Your task to perform on an android device: open app "Adobe Acrobat Reader" Image 0: 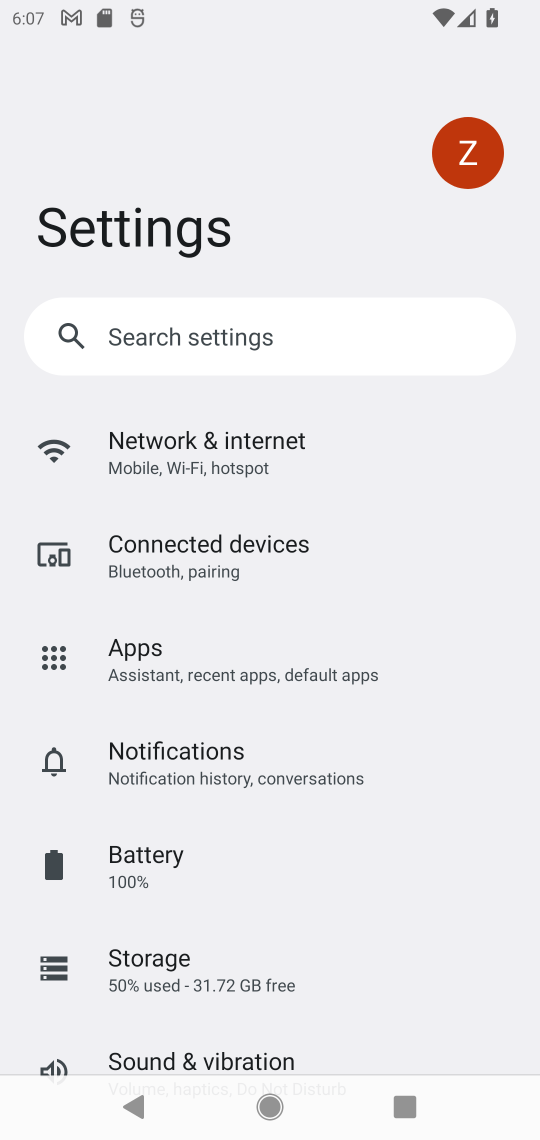
Step 0: press back button
Your task to perform on an android device: open app "Adobe Acrobat Reader" Image 1: 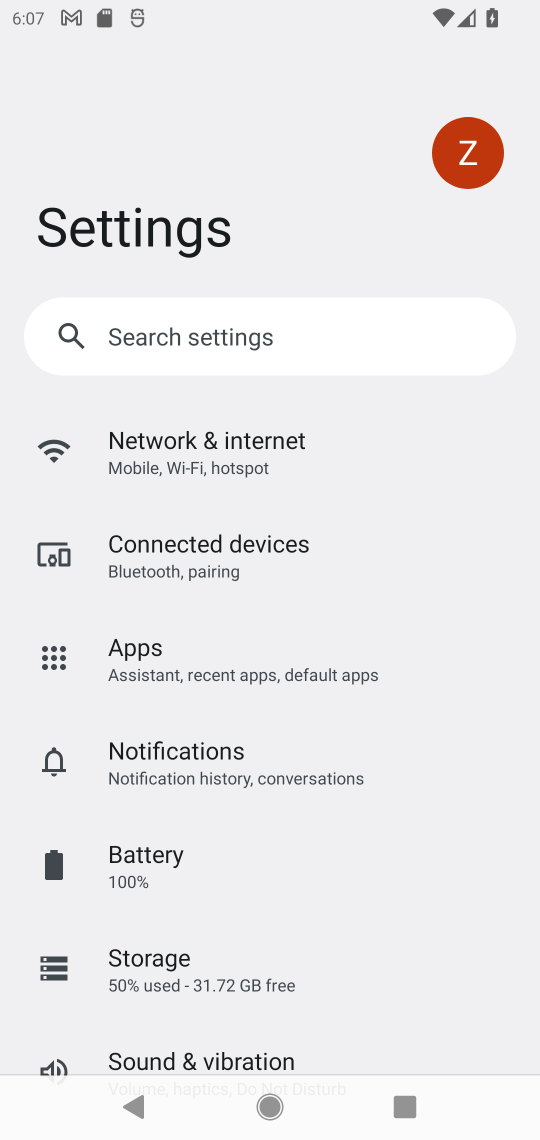
Step 1: press back button
Your task to perform on an android device: open app "Adobe Acrobat Reader" Image 2: 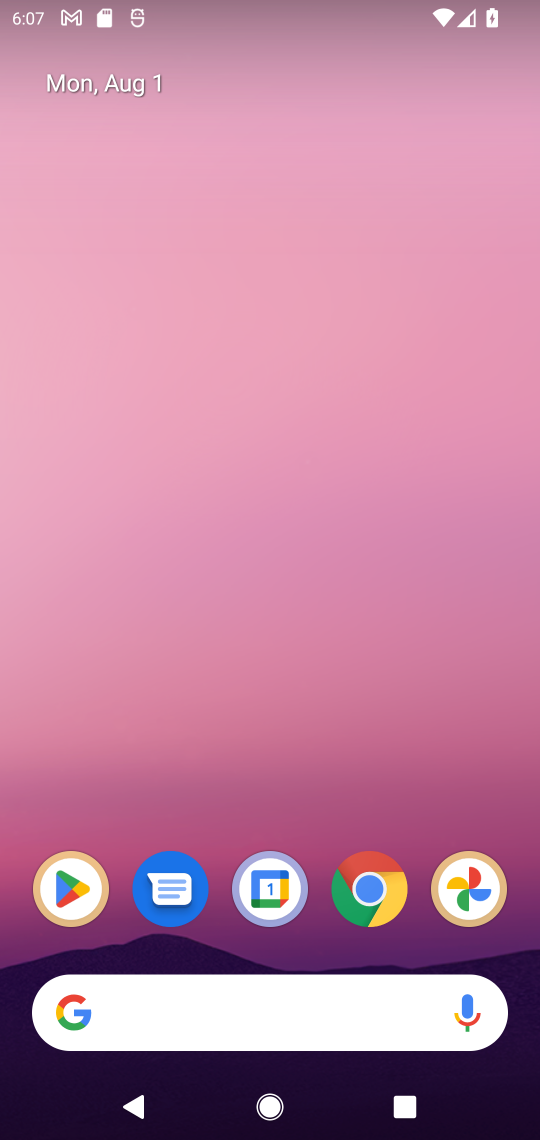
Step 2: click (268, 299)
Your task to perform on an android device: open app "Adobe Acrobat Reader" Image 3: 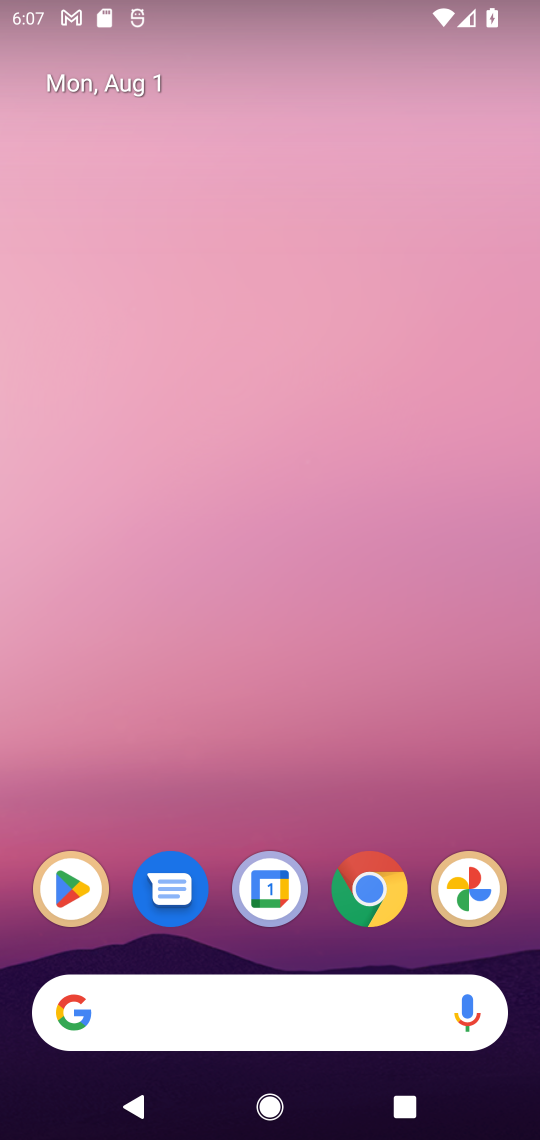
Step 3: click (275, 464)
Your task to perform on an android device: open app "Adobe Acrobat Reader" Image 4: 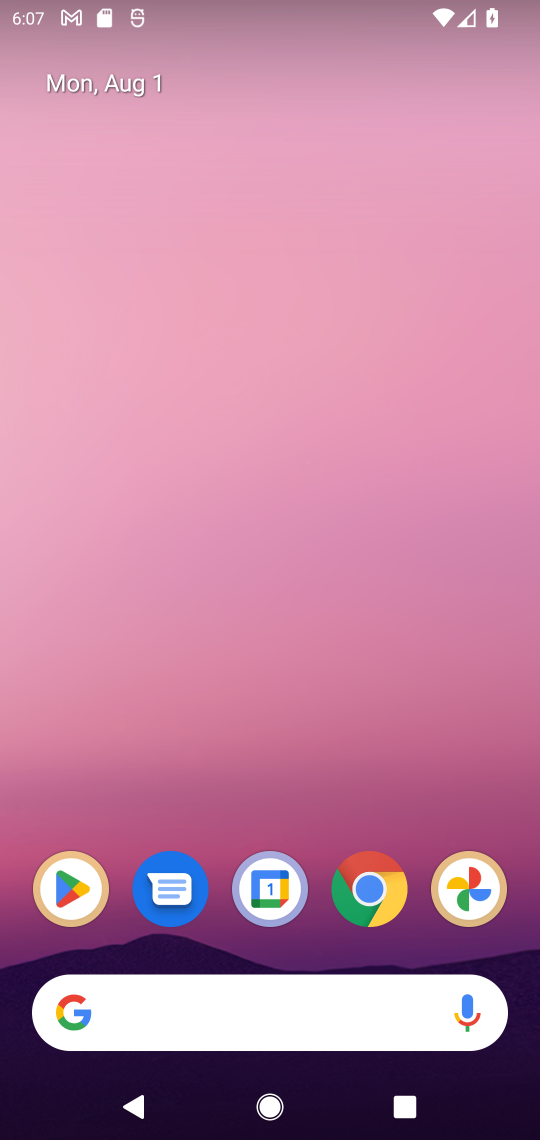
Step 4: drag from (251, 422) to (226, 249)
Your task to perform on an android device: open app "Adobe Acrobat Reader" Image 5: 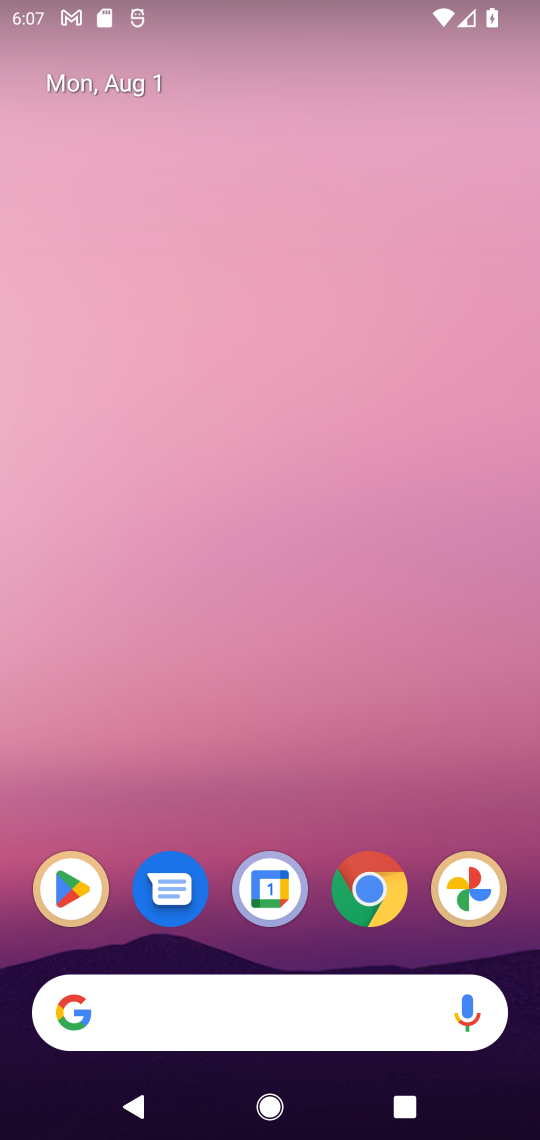
Step 5: drag from (343, 429) to (293, 236)
Your task to perform on an android device: open app "Adobe Acrobat Reader" Image 6: 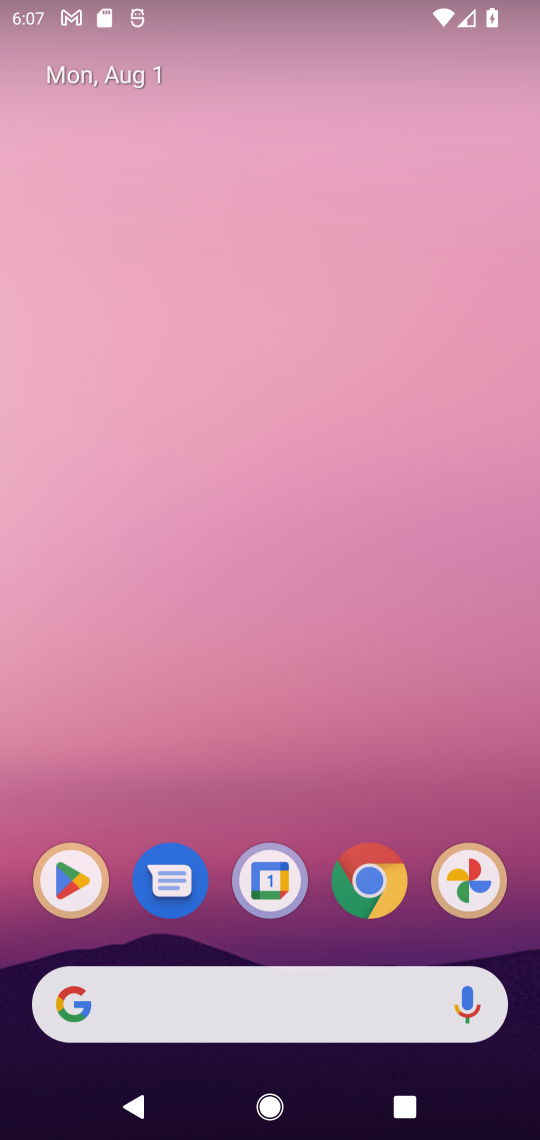
Step 6: drag from (266, 482) to (233, 61)
Your task to perform on an android device: open app "Adobe Acrobat Reader" Image 7: 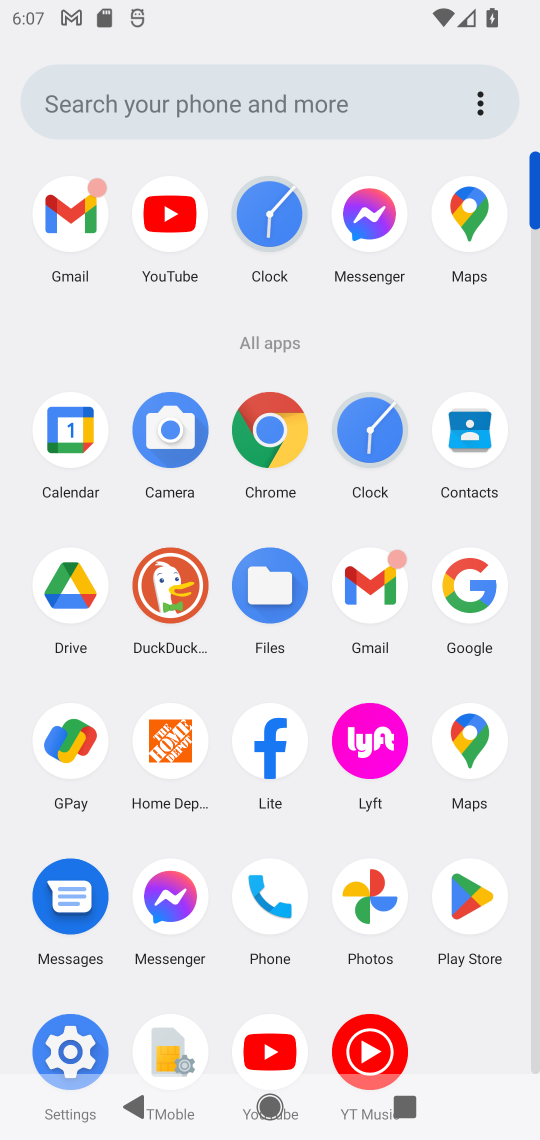
Step 7: click (469, 921)
Your task to perform on an android device: open app "Adobe Acrobat Reader" Image 8: 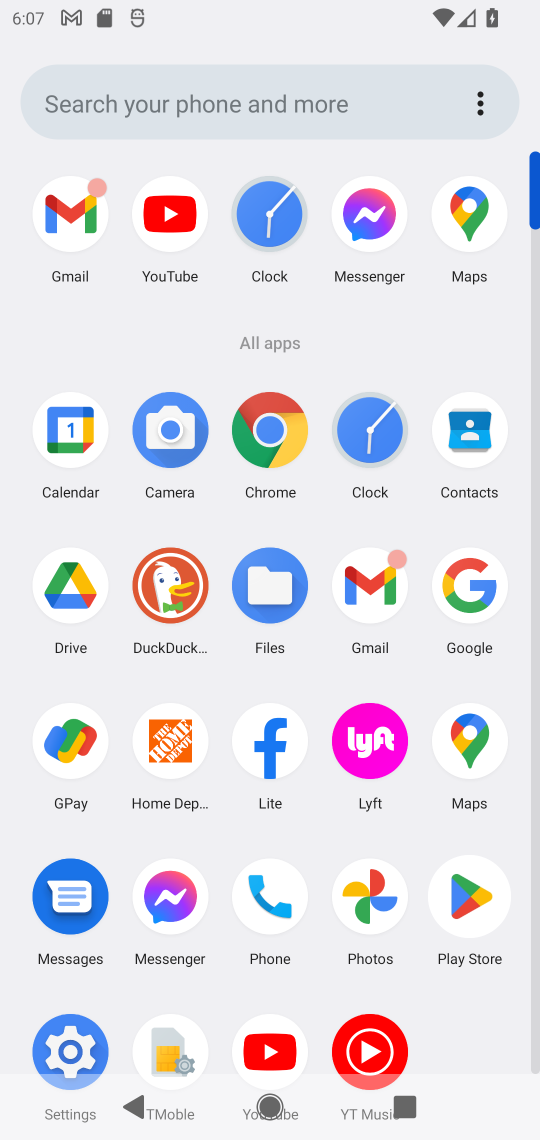
Step 8: click (462, 926)
Your task to perform on an android device: open app "Adobe Acrobat Reader" Image 9: 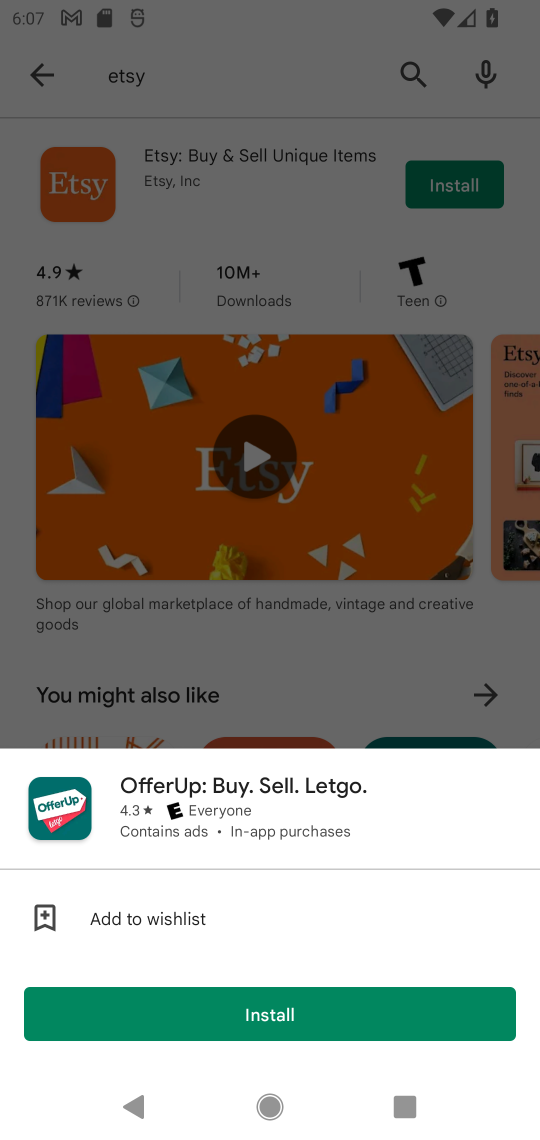
Step 9: click (37, 86)
Your task to perform on an android device: open app "Adobe Acrobat Reader" Image 10: 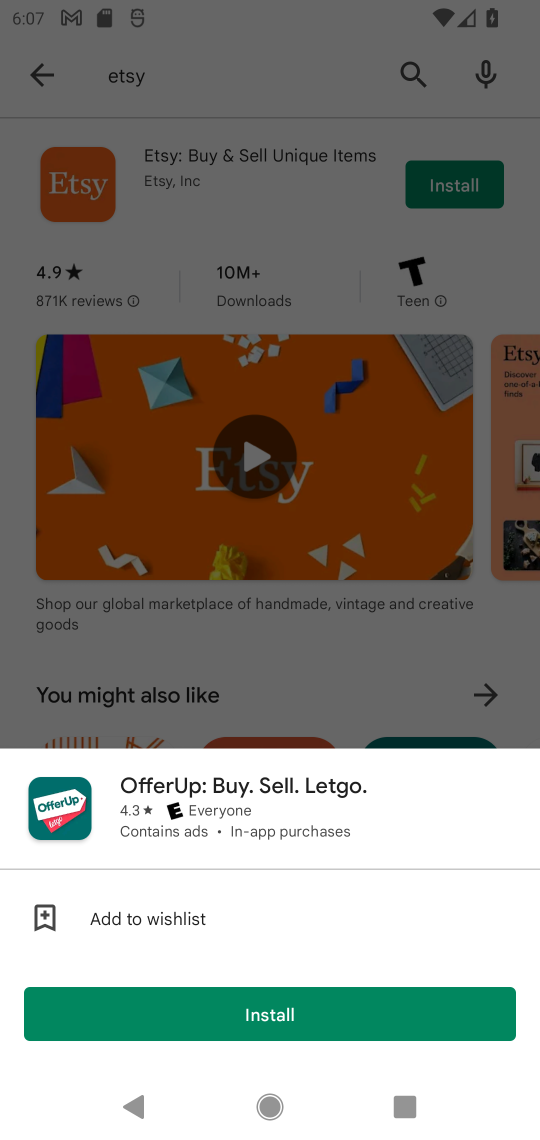
Step 10: click (37, 86)
Your task to perform on an android device: open app "Adobe Acrobat Reader" Image 11: 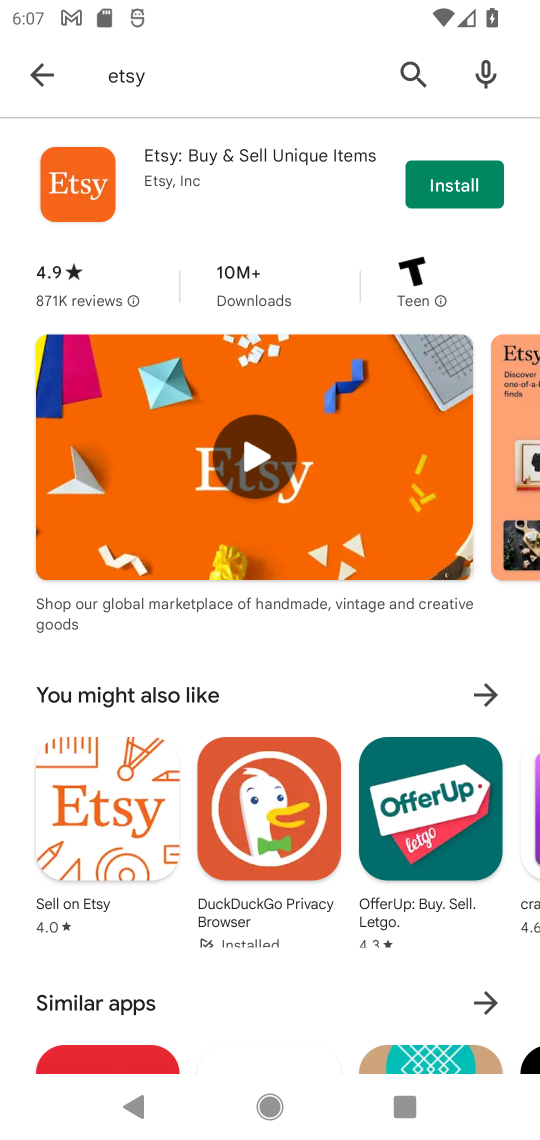
Step 11: click (9, 80)
Your task to perform on an android device: open app "Adobe Acrobat Reader" Image 12: 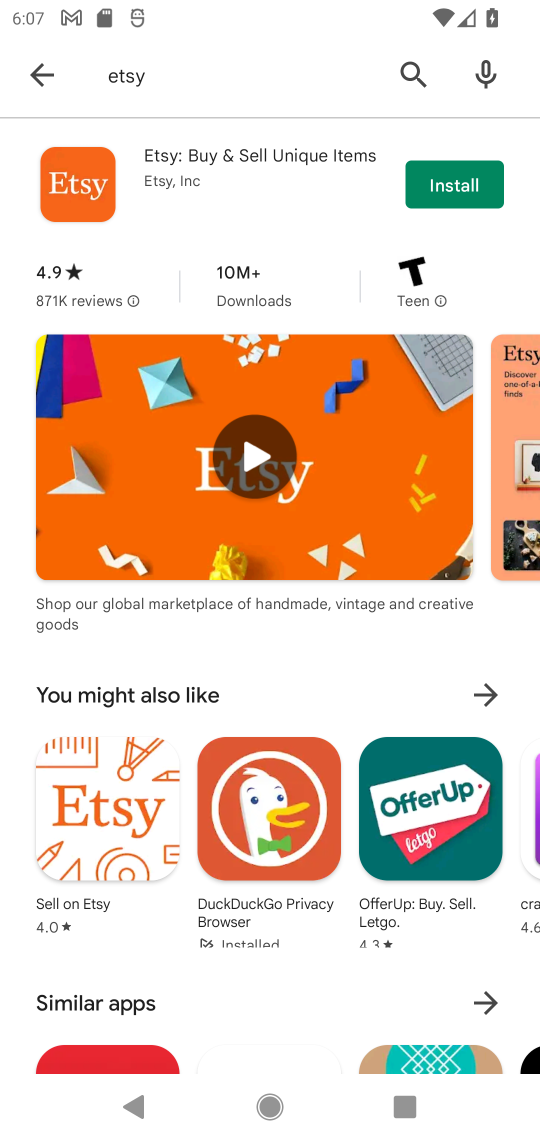
Step 12: click (47, 90)
Your task to perform on an android device: open app "Adobe Acrobat Reader" Image 13: 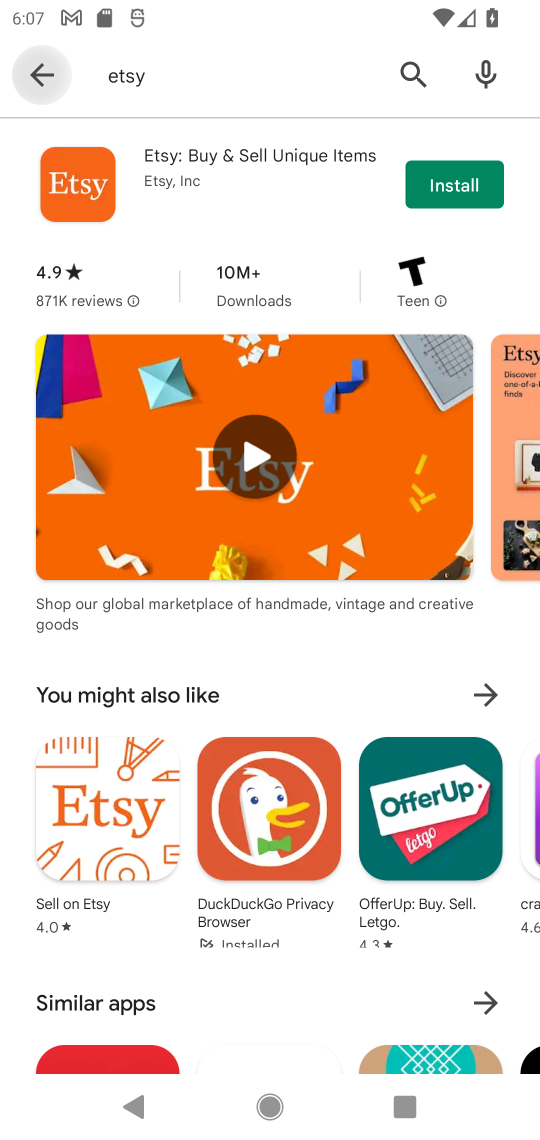
Step 13: click (48, 94)
Your task to perform on an android device: open app "Adobe Acrobat Reader" Image 14: 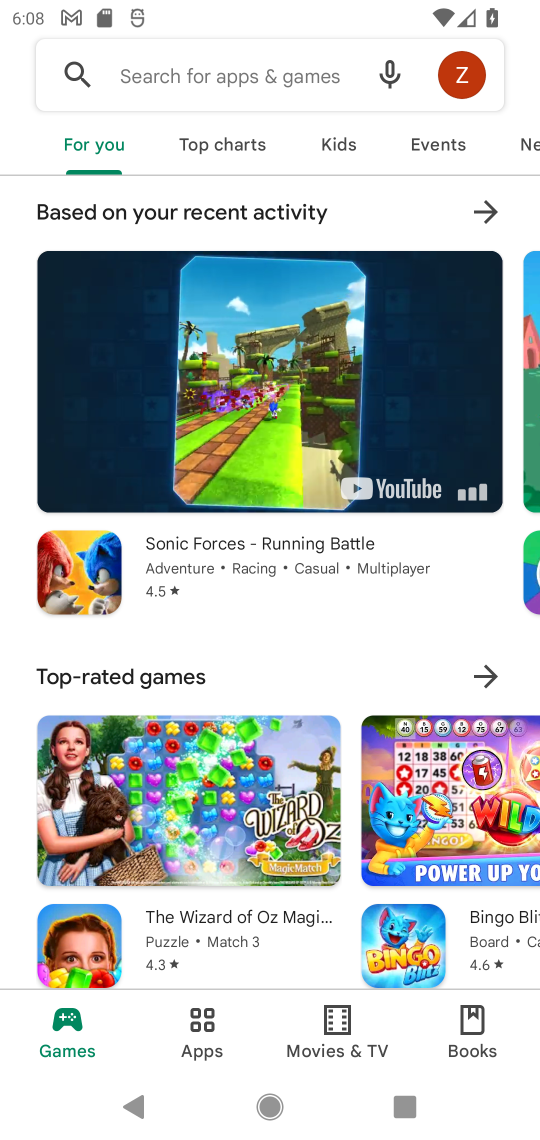
Step 14: click (169, 81)
Your task to perform on an android device: open app "Adobe Acrobat Reader" Image 15: 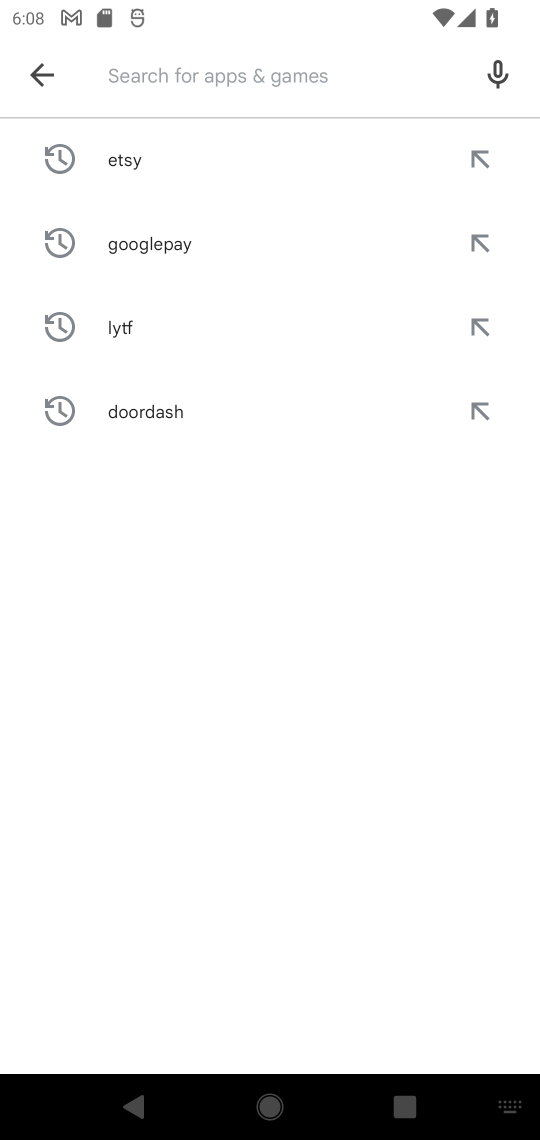
Step 15: type "adobe"
Your task to perform on an android device: open app "Adobe Acrobat Reader" Image 16: 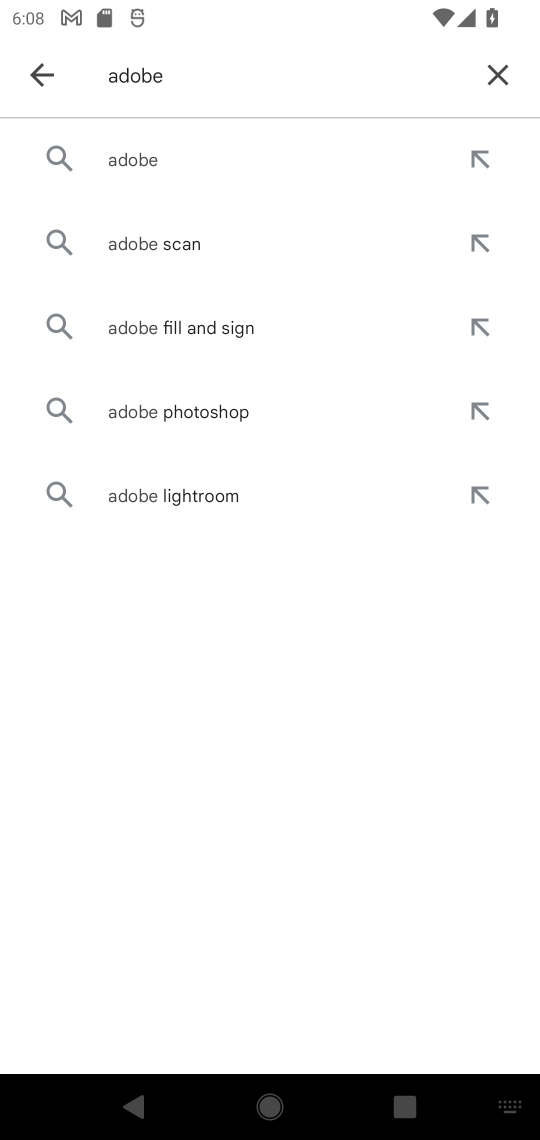
Step 16: click (127, 152)
Your task to perform on an android device: open app "Adobe Acrobat Reader" Image 17: 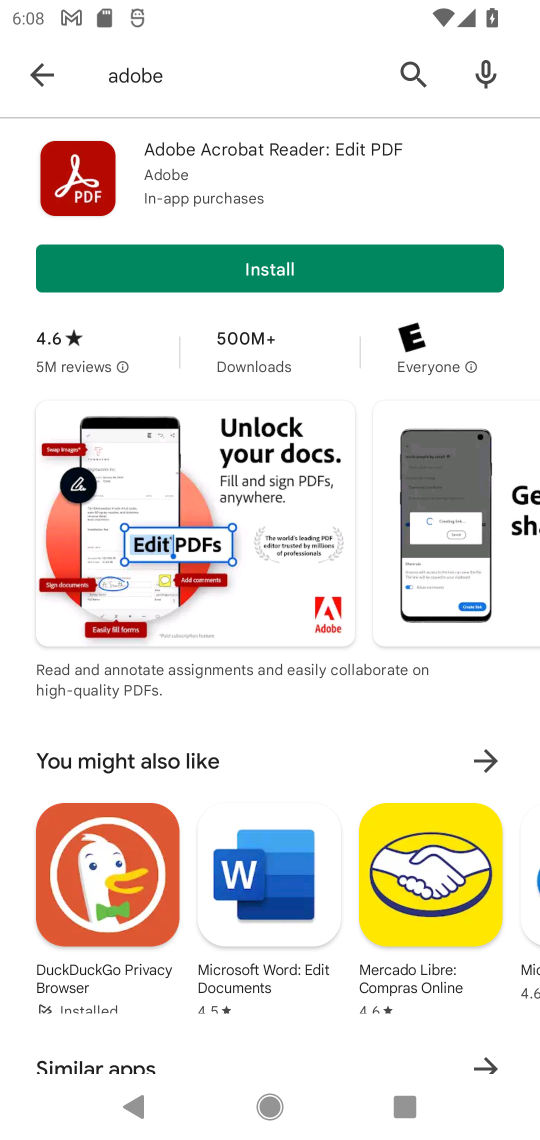
Step 17: click (289, 261)
Your task to perform on an android device: open app "Adobe Acrobat Reader" Image 18: 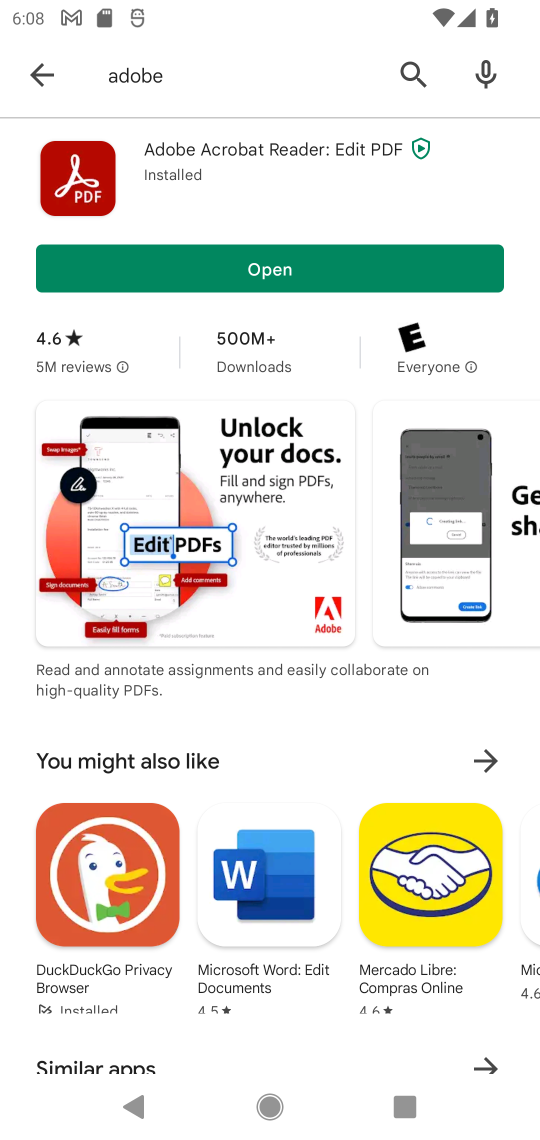
Step 18: click (327, 253)
Your task to perform on an android device: open app "Adobe Acrobat Reader" Image 19: 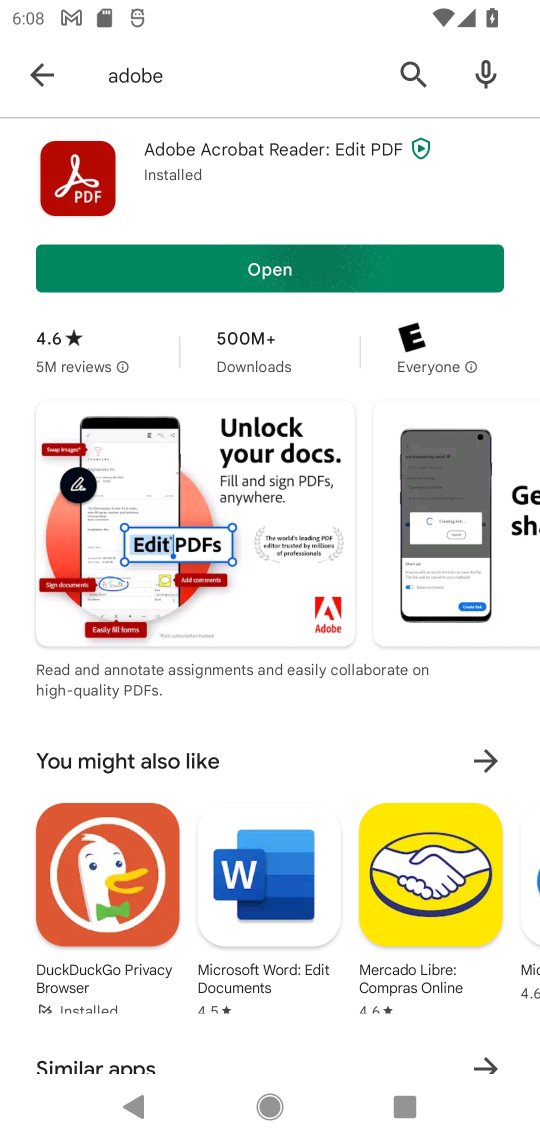
Step 19: click (322, 265)
Your task to perform on an android device: open app "Adobe Acrobat Reader" Image 20: 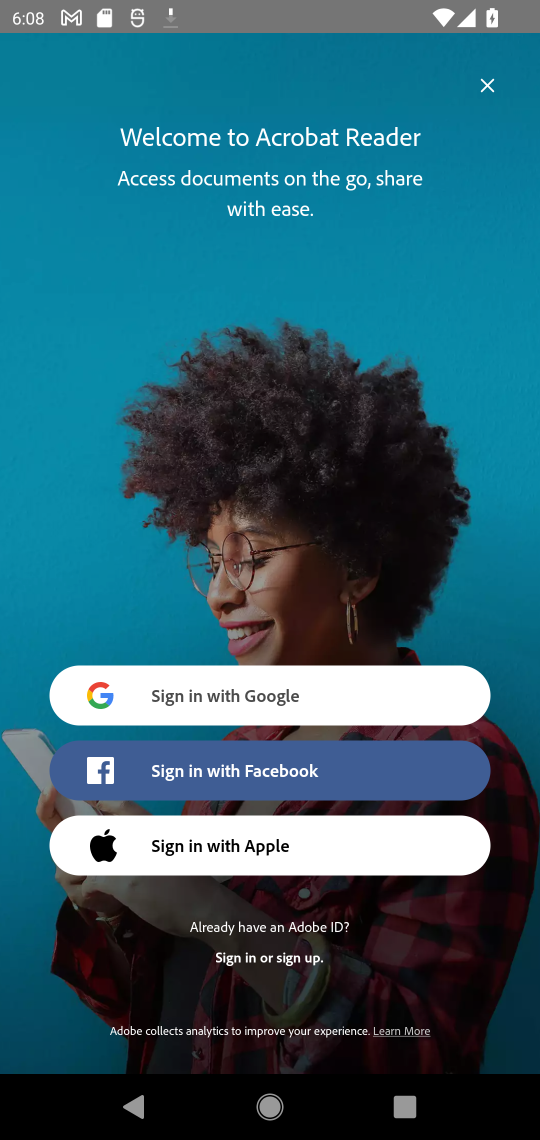
Step 20: task complete